Your task to perform on an android device: change alarm snooze length Image 0: 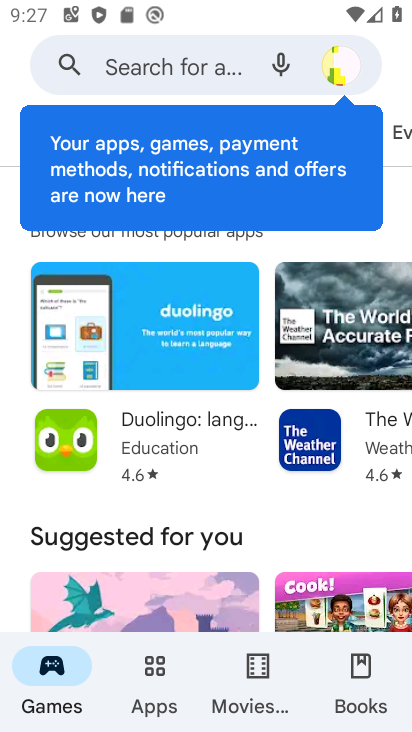
Step 0: press home button
Your task to perform on an android device: change alarm snooze length Image 1: 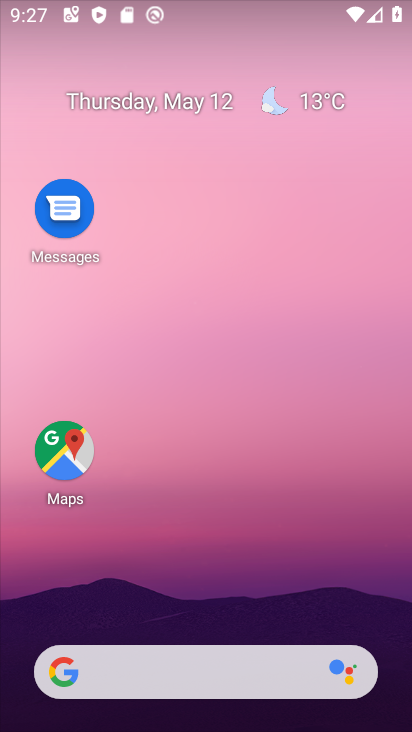
Step 1: drag from (192, 639) to (185, 5)
Your task to perform on an android device: change alarm snooze length Image 2: 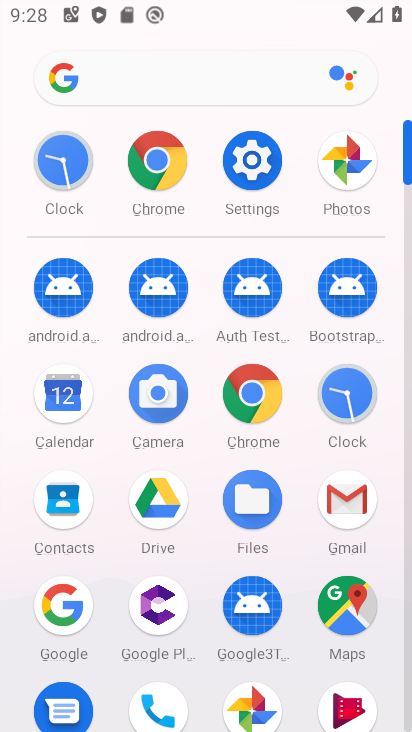
Step 2: click (338, 395)
Your task to perform on an android device: change alarm snooze length Image 3: 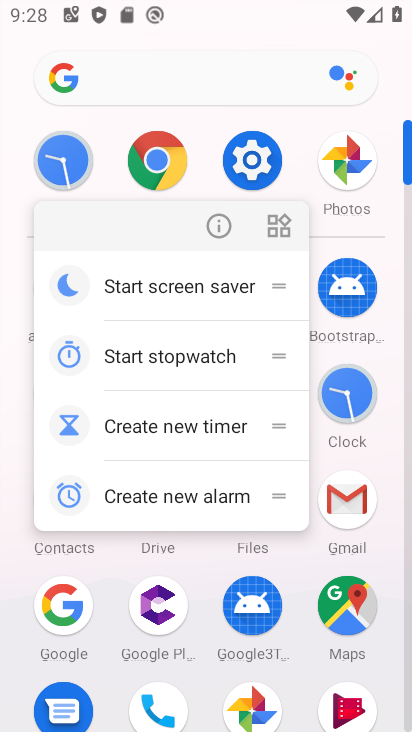
Step 3: click (364, 416)
Your task to perform on an android device: change alarm snooze length Image 4: 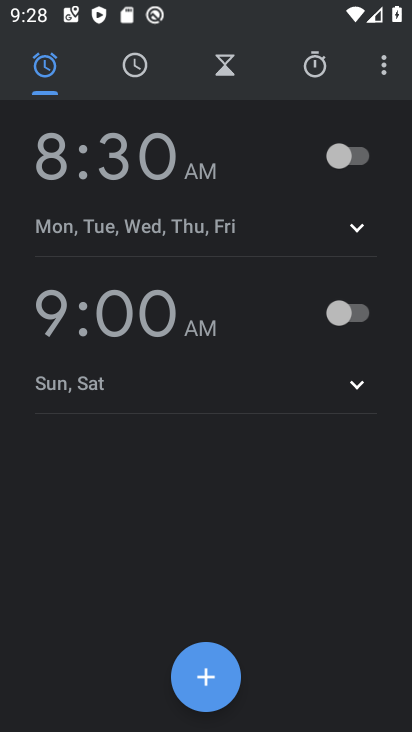
Step 4: click (375, 54)
Your task to perform on an android device: change alarm snooze length Image 5: 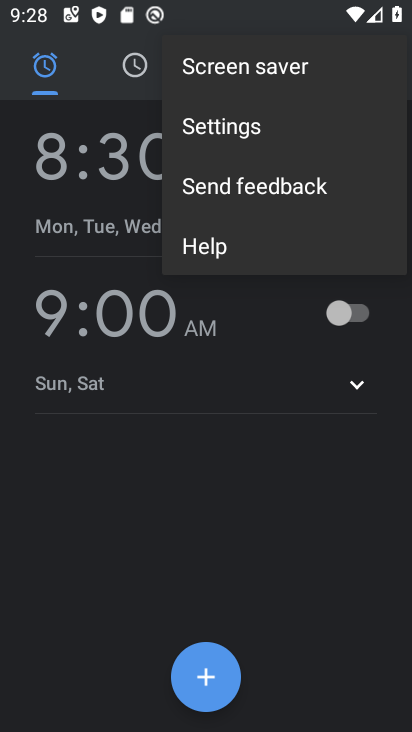
Step 5: click (275, 123)
Your task to perform on an android device: change alarm snooze length Image 6: 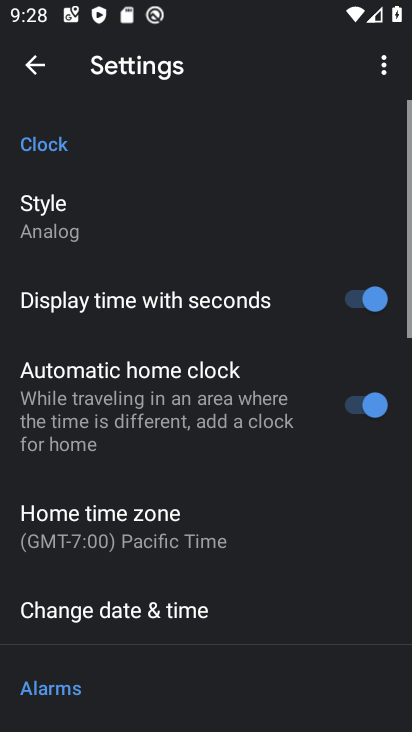
Step 6: drag from (99, 578) to (85, 60)
Your task to perform on an android device: change alarm snooze length Image 7: 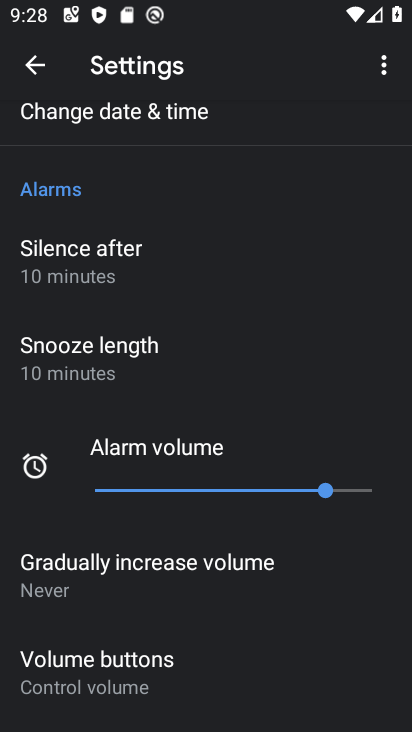
Step 7: click (122, 371)
Your task to perform on an android device: change alarm snooze length Image 8: 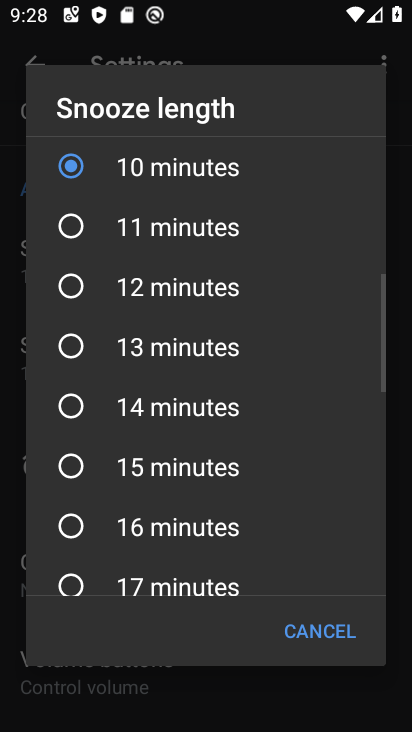
Step 8: click (158, 231)
Your task to perform on an android device: change alarm snooze length Image 9: 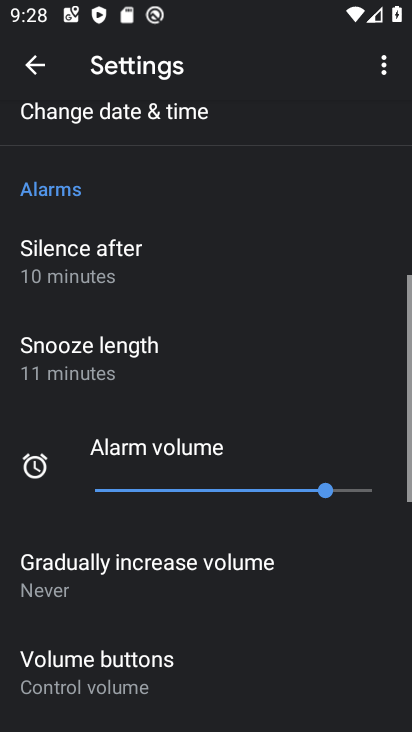
Step 9: task complete